Your task to perform on an android device: Search for "lenovo thinkpad" on walmart.com, select the first entry, add it to the cart, then select checkout. Image 0: 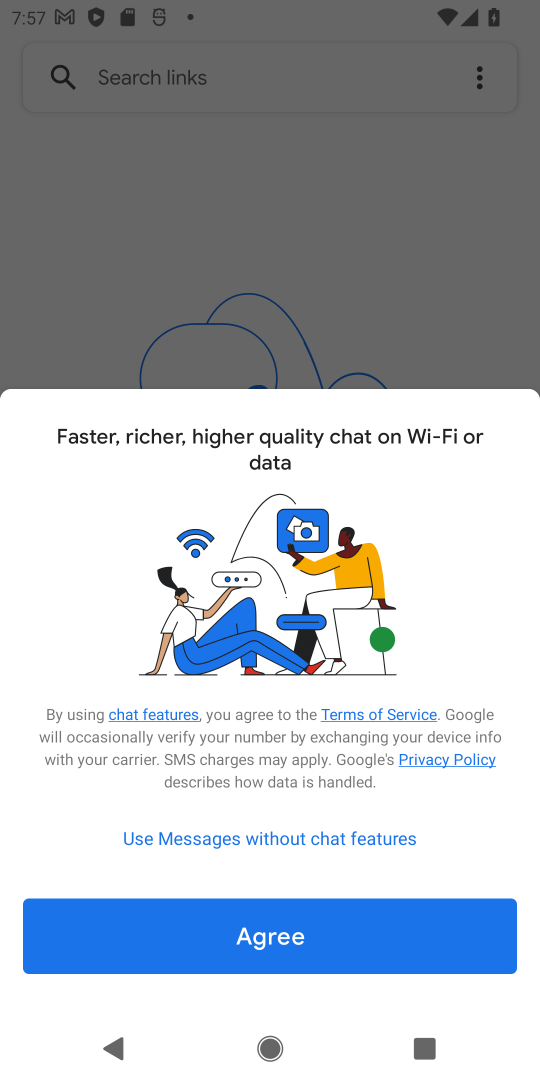
Step 0: press home button
Your task to perform on an android device: Search for "lenovo thinkpad" on walmart.com, select the first entry, add it to the cart, then select checkout. Image 1: 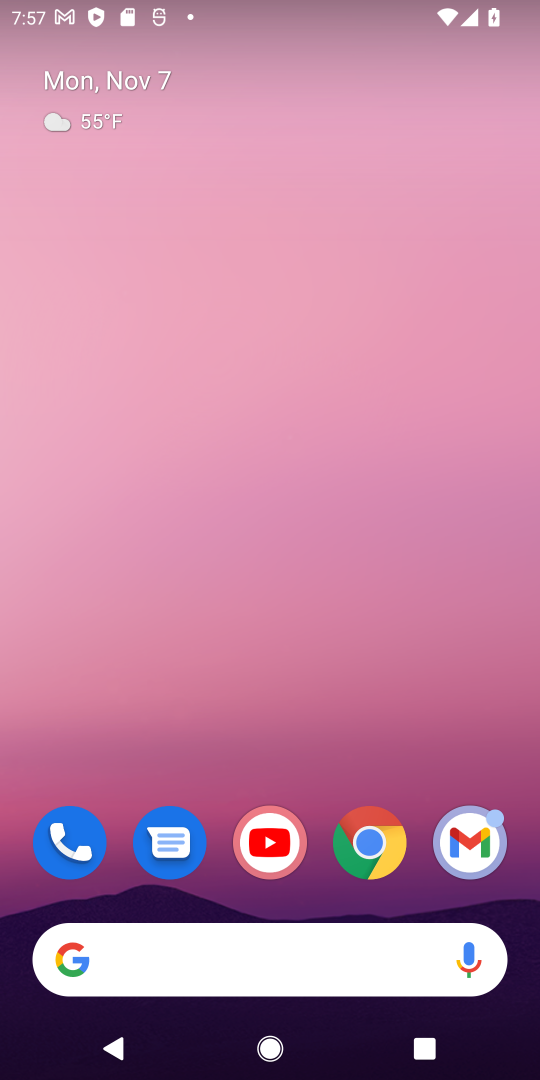
Step 1: click (372, 847)
Your task to perform on an android device: Search for "lenovo thinkpad" on walmart.com, select the first entry, add it to the cart, then select checkout. Image 2: 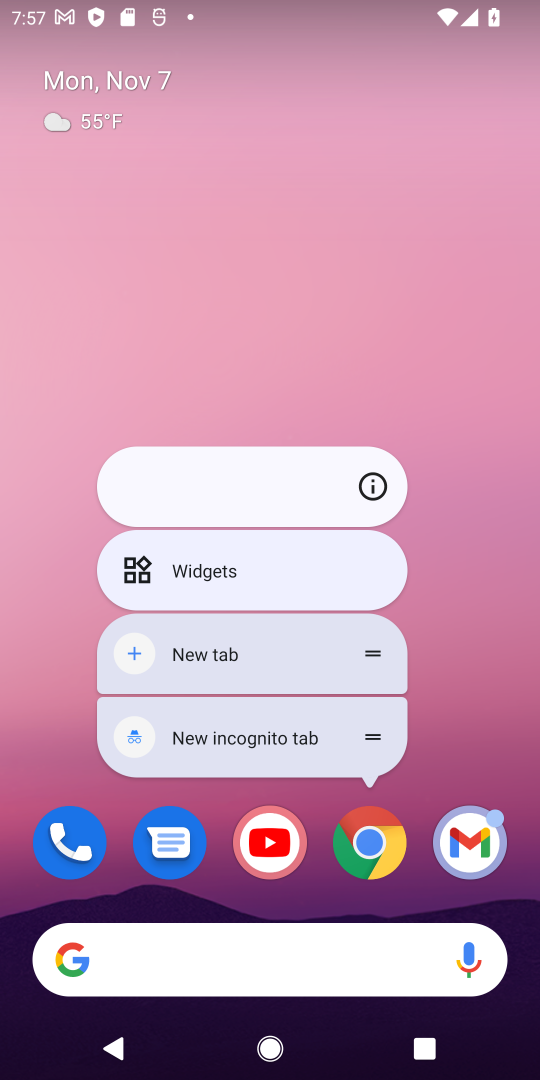
Step 2: click (379, 841)
Your task to perform on an android device: Search for "lenovo thinkpad" on walmart.com, select the first entry, add it to the cart, then select checkout. Image 3: 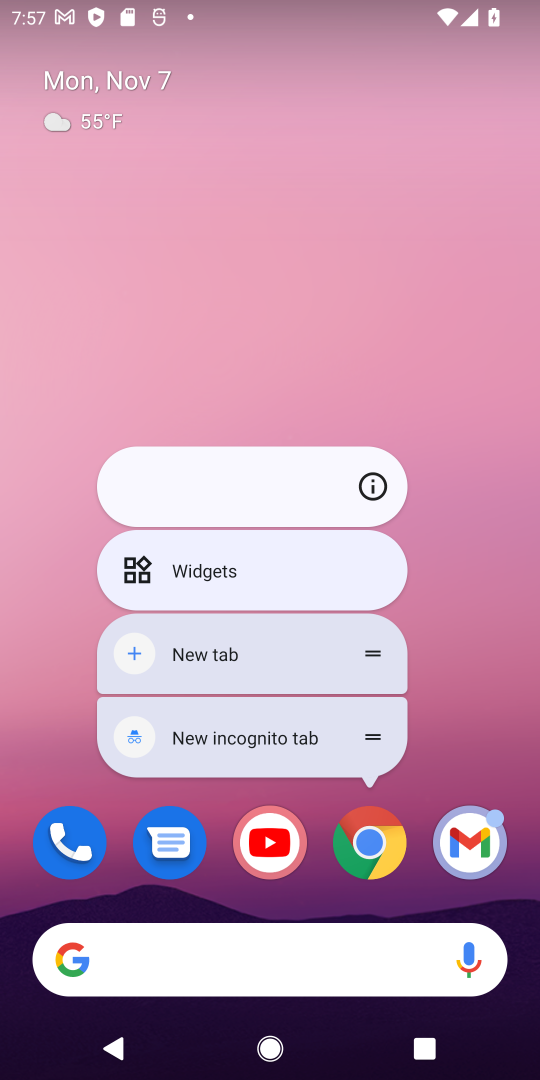
Step 3: click (373, 840)
Your task to perform on an android device: Search for "lenovo thinkpad" on walmart.com, select the first entry, add it to the cart, then select checkout. Image 4: 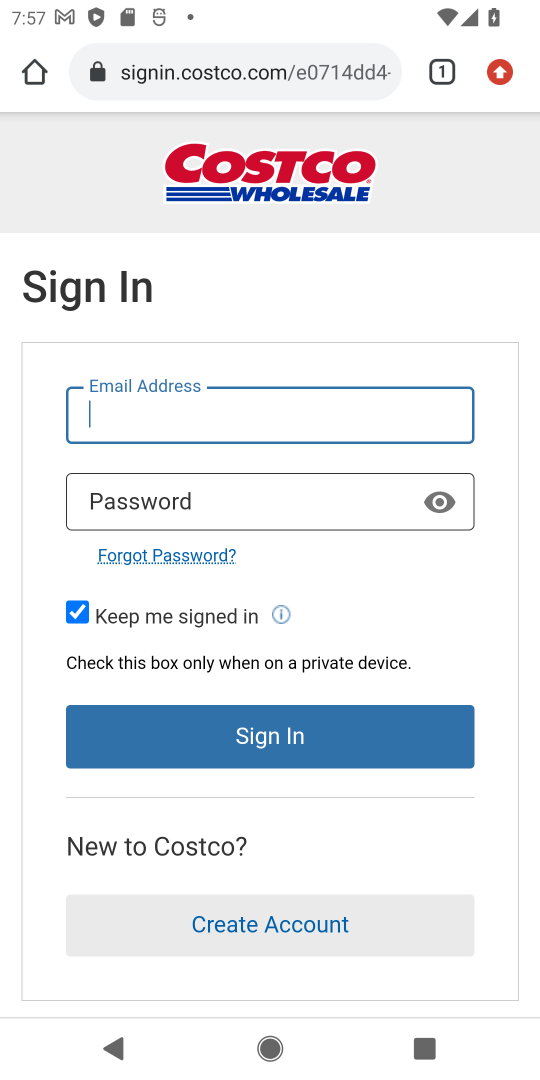
Step 4: click (358, 67)
Your task to perform on an android device: Search for "lenovo thinkpad" on walmart.com, select the first entry, add it to the cart, then select checkout. Image 5: 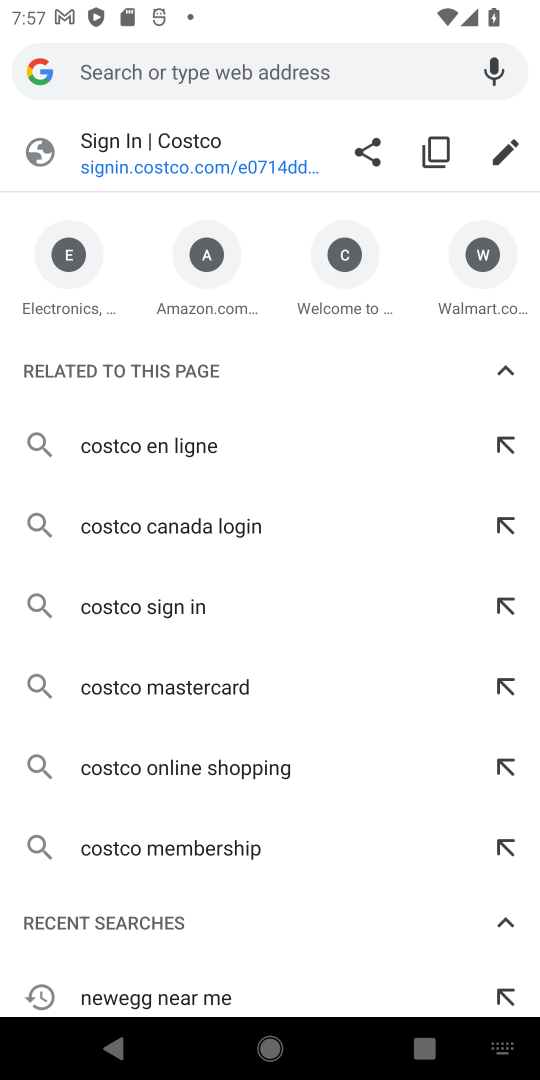
Step 5: click (457, 300)
Your task to perform on an android device: Search for "lenovo thinkpad" on walmart.com, select the first entry, add it to the cart, then select checkout. Image 6: 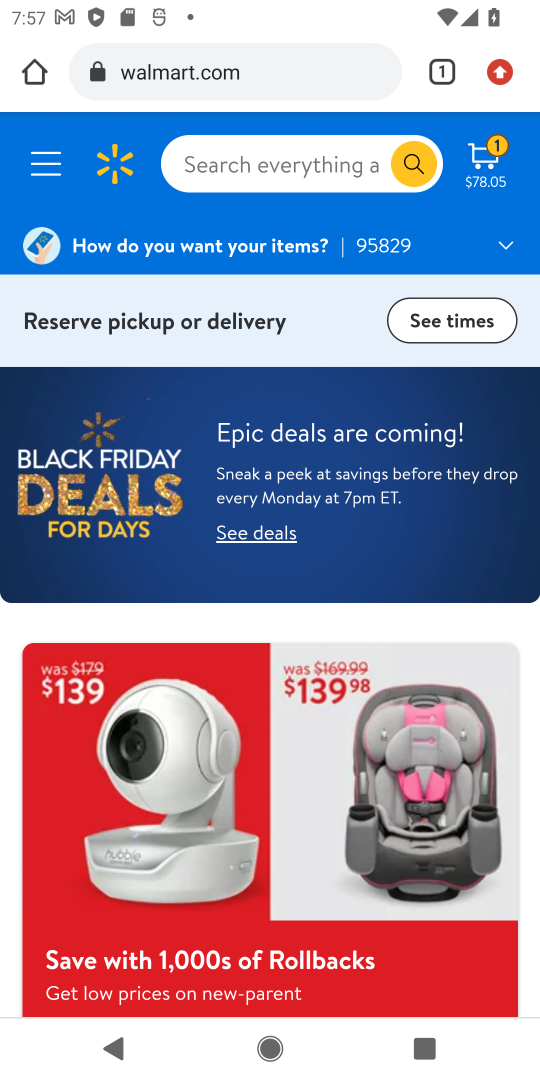
Step 6: click (293, 162)
Your task to perform on an android device: Search for "lenovo thinkpad" on walmart.com, select the first entry, add it to the cart, then select checkout. Image 7: 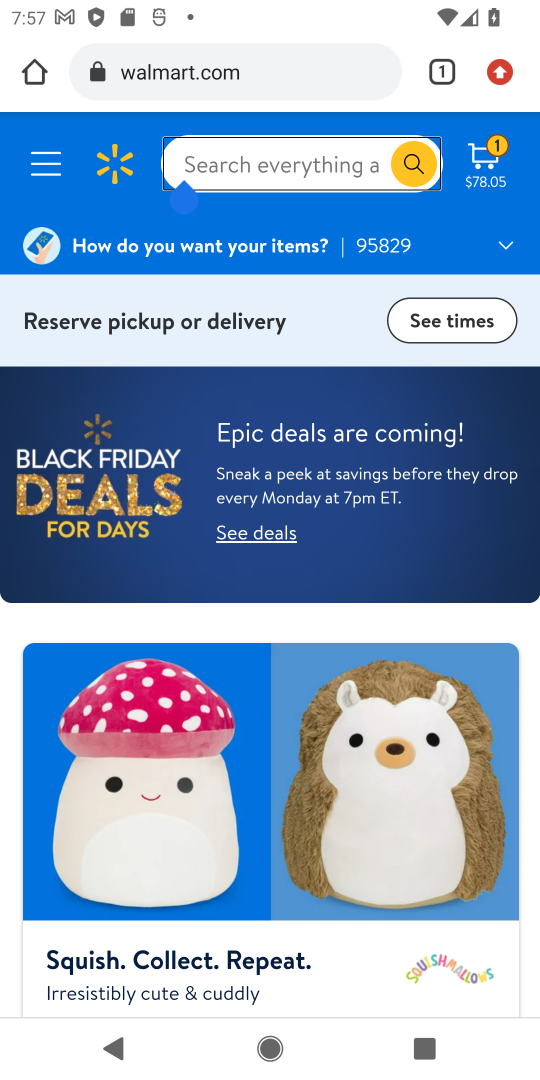
Step 7: type "lenovo thinkpad"
Your task to perform on an android device: Search for "lenovo thinkpad" on walmart.com, select the first entry, add it to the cart, then select checkout. Image 8: 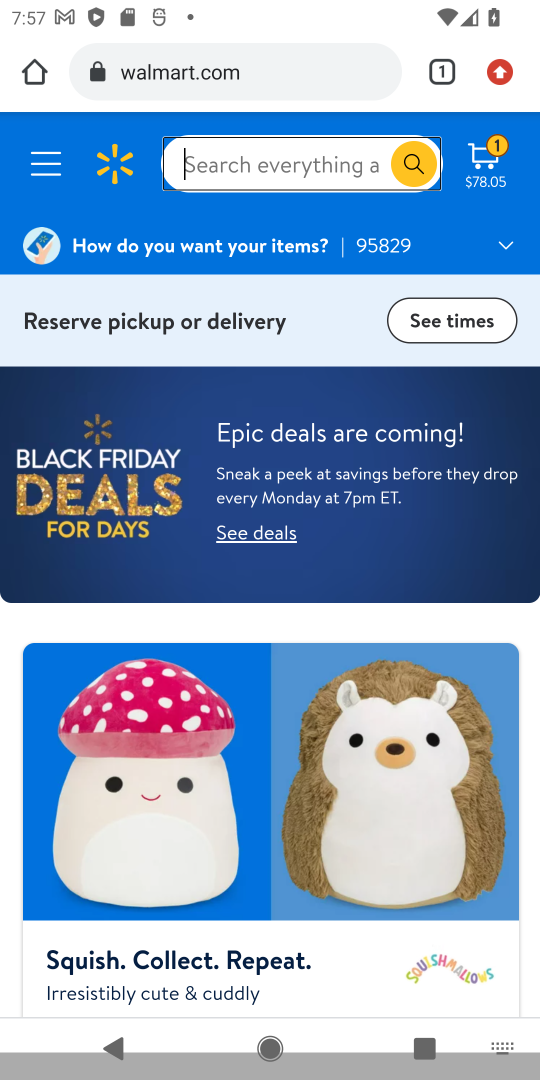
Step 8: press enter
Your task to perform on an android device: Search for "lenovo thinkpad" on walmart.com, select the first entry, add it to the cart, then select checkout. Image 9: 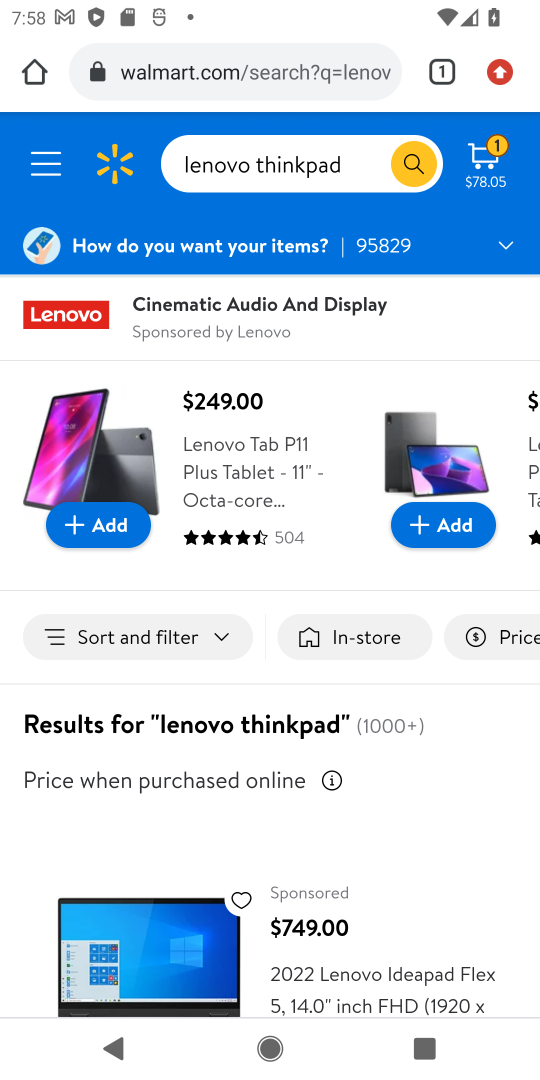
Step 9: task complete